Your task to perform on an android device: How do I get to the nearest Macy's? Image 0: 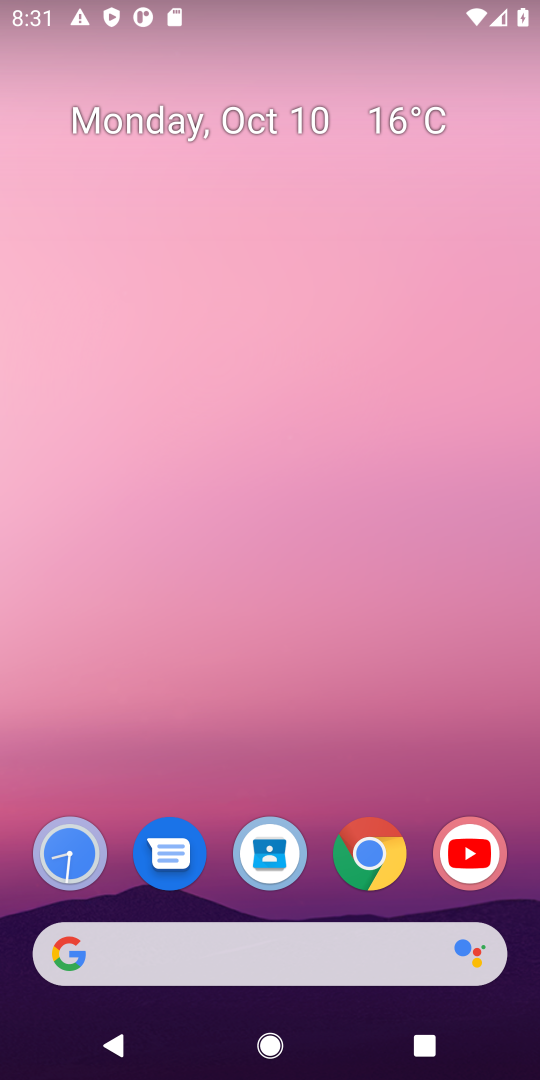
Step 0: drag from (317, 784) to (271, 186)
Your task to perform on an android device: How do I get to the nearest Macy's? Image 1: 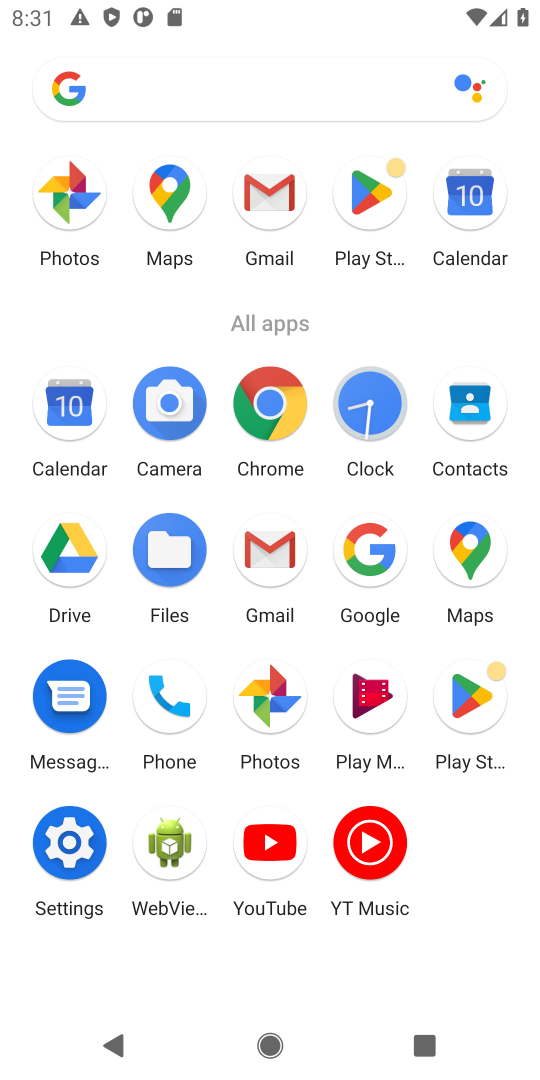
Step 1: click (267, 409)
Your task to perform on an android device: How do I get to the nearest Macy's? Image 2: 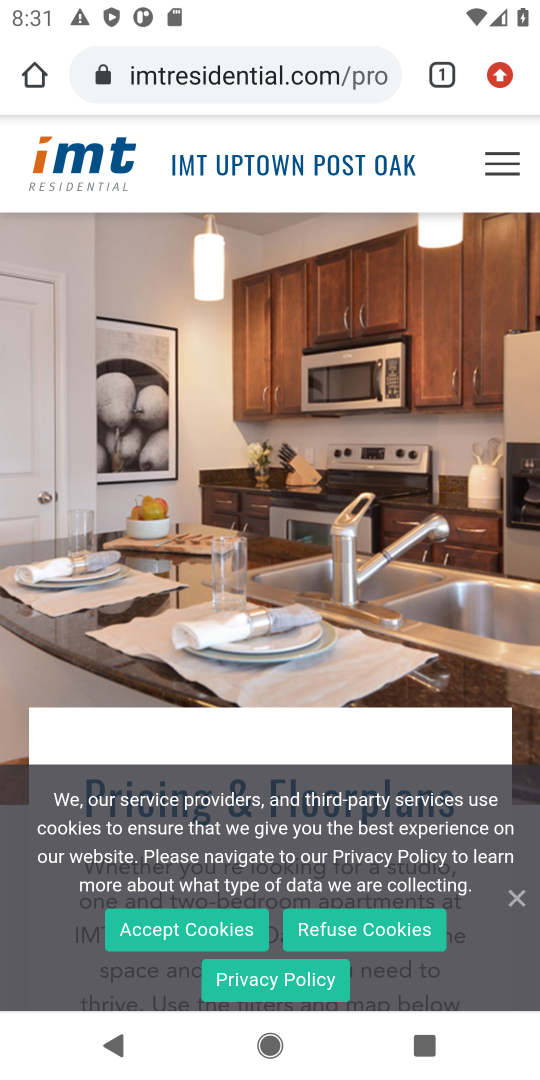
Step 2: drag from (495, 79) to (200, 255)
Your task to perform on an android device: How do I get to the nearest Macy's? Image 3: 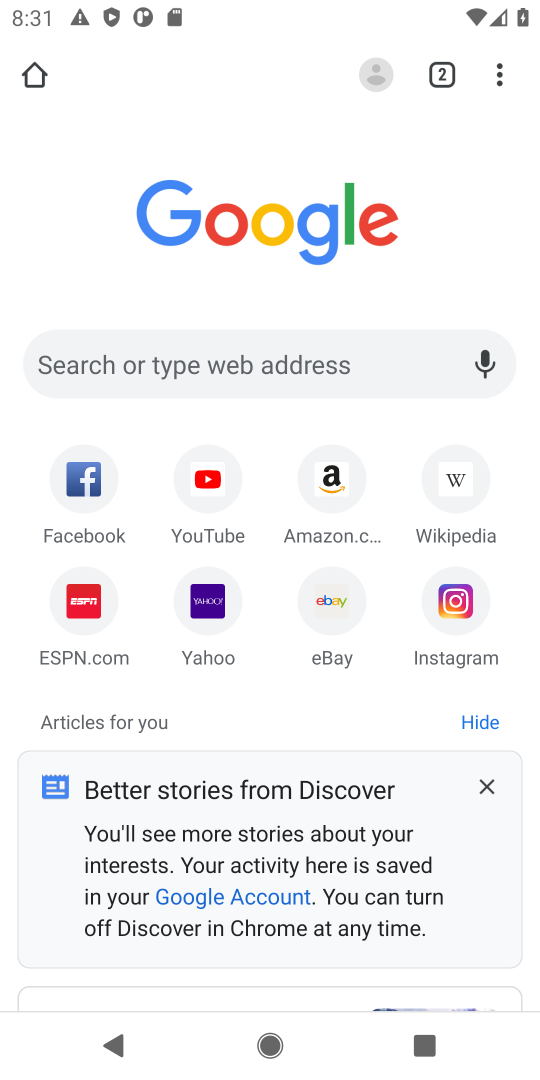
Step 3: click (289, 369)
Your task to perform on an android device: How do I get to the nearest Macy's? Image 4: 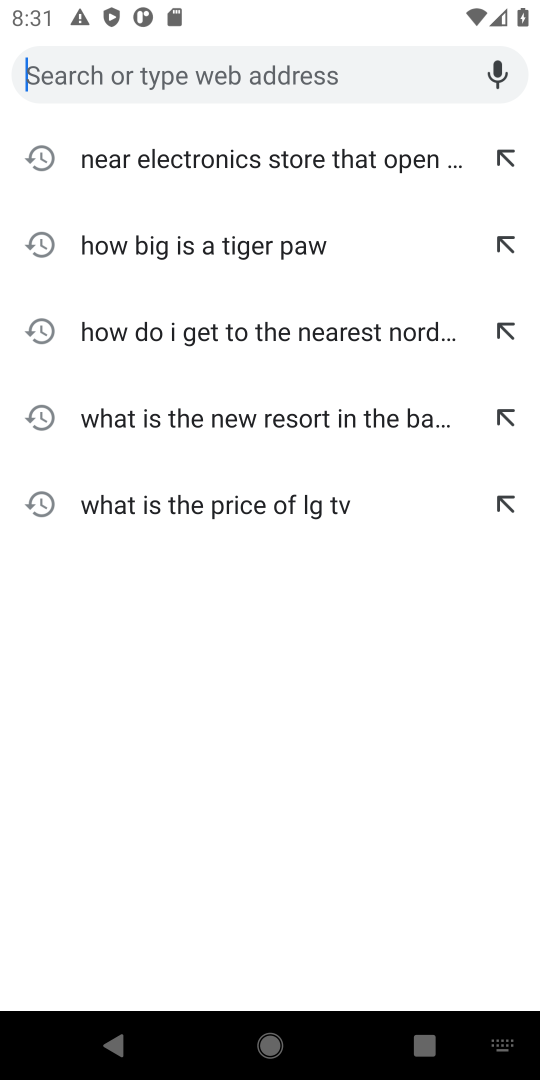
Step 4: type "How do I get to the nearest Macy's?"
Your task to perform on an android device: How do I get to the nearest Macy's? Image 5: 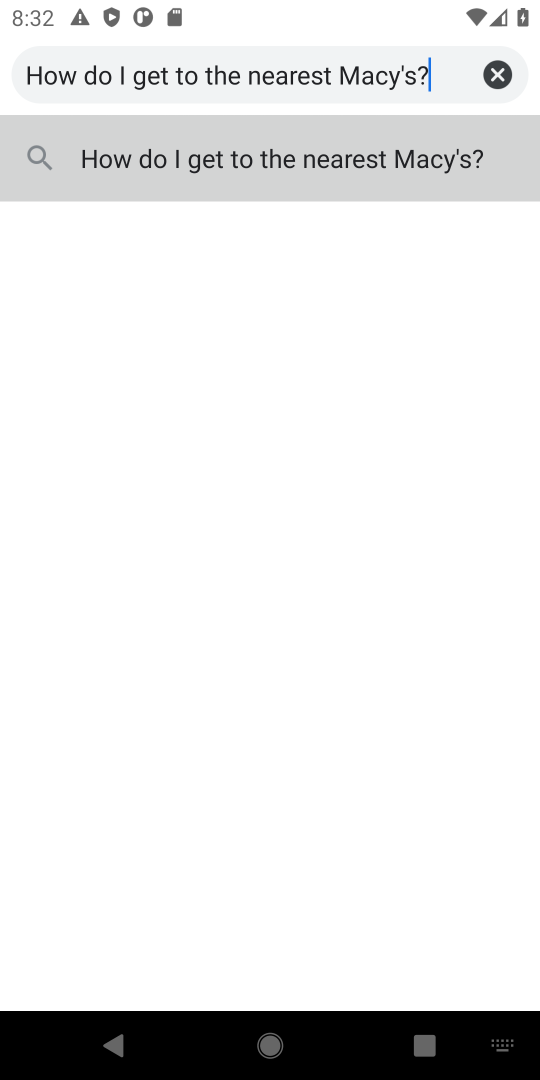
Step 5: click (370, 157)
Your task to perform on an android device: How do I get to the nearest Macy's? Image 6: 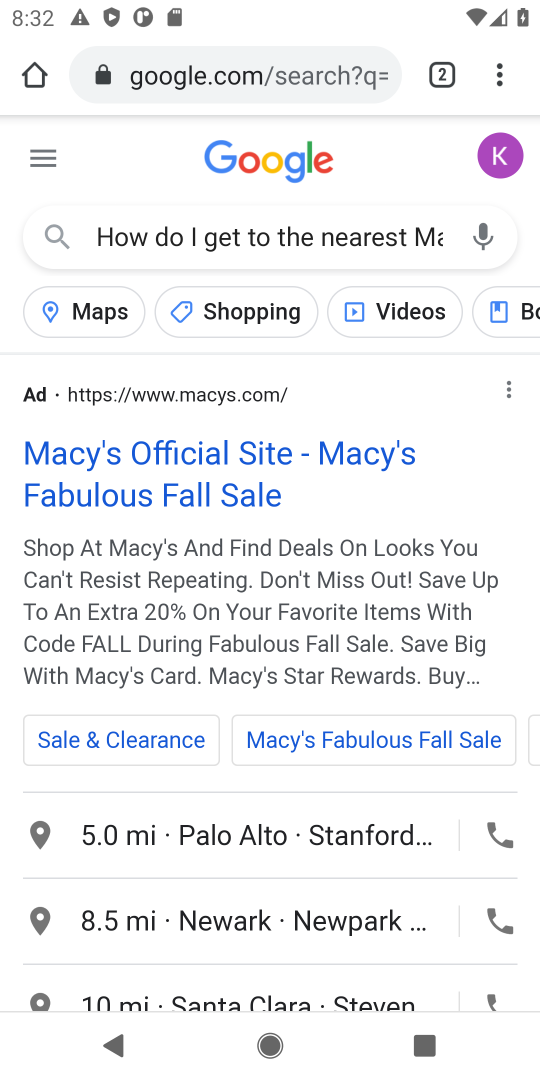
Step 6: task complete